Your task to perform on an android device: Open Chrome and go to settings Image 0: 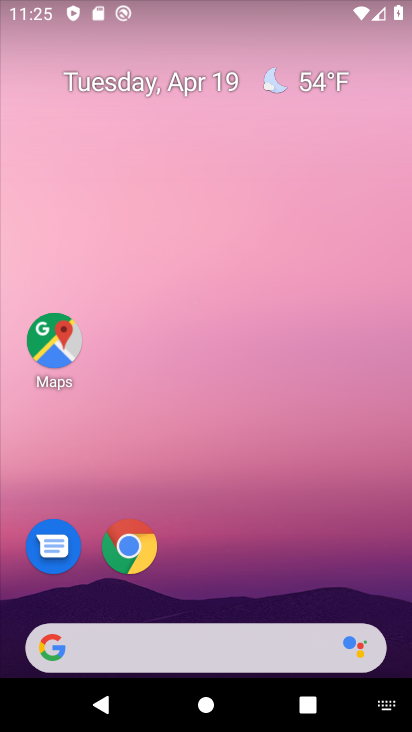
Step 0: click (140, 562)
Your task to perform on an android device: Open Chrome and go to settings Image 1: 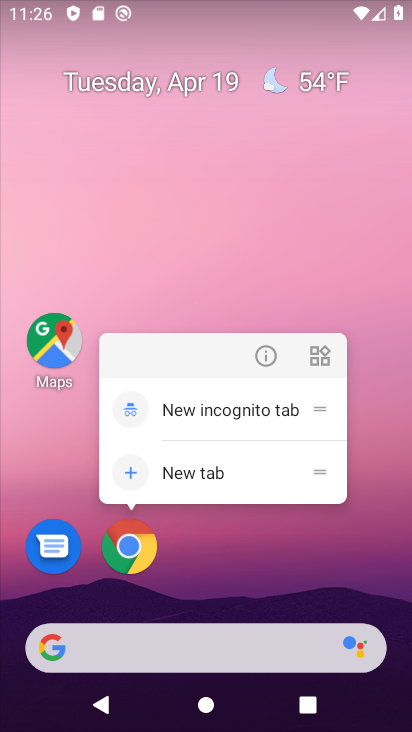
Step 1: click (140, 553)
Your task to perform on an android device: Open Chrome and go to settings Image 2: 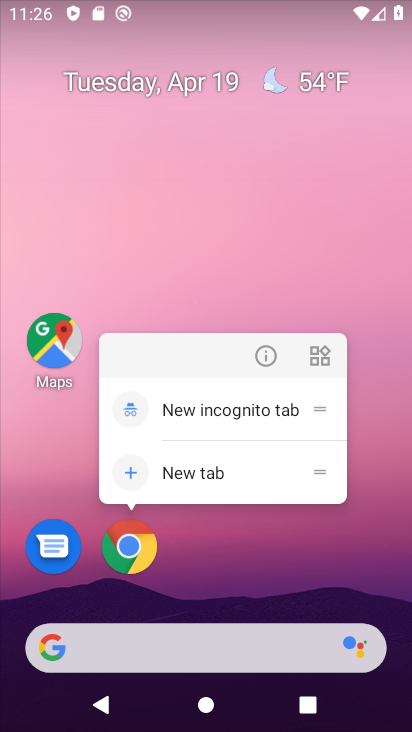
Step 2: click (130, 529)
Your task to perform on an android device: Open Chrome and go to settings Image 3: 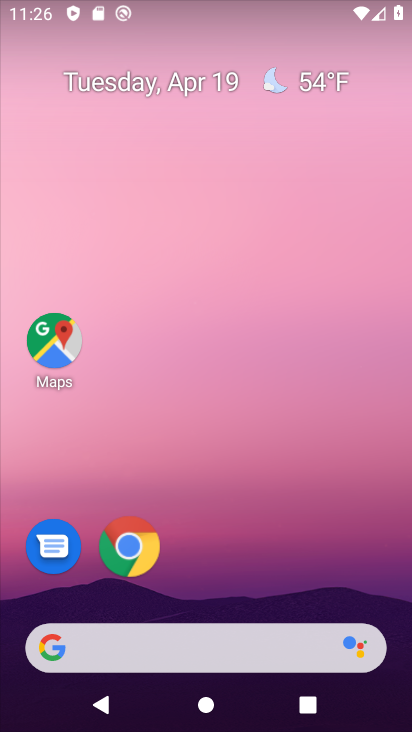
Step 3: click (130, 529)
Your task to perform on an android device: Open Chrome and go to settings Image 4: 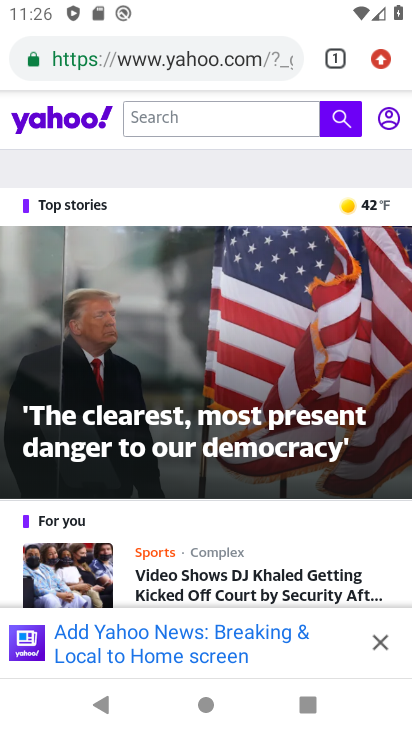
Step 4: click (386, 56)
Your task to perform on an android device: Open Chrome and go to settings Image 5: 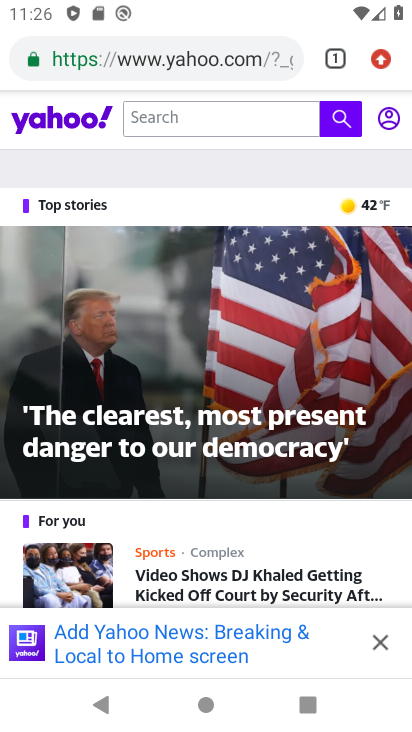
Step 5: task complete